Your task to perform on an android device: open chrome privacy settings Image 0: 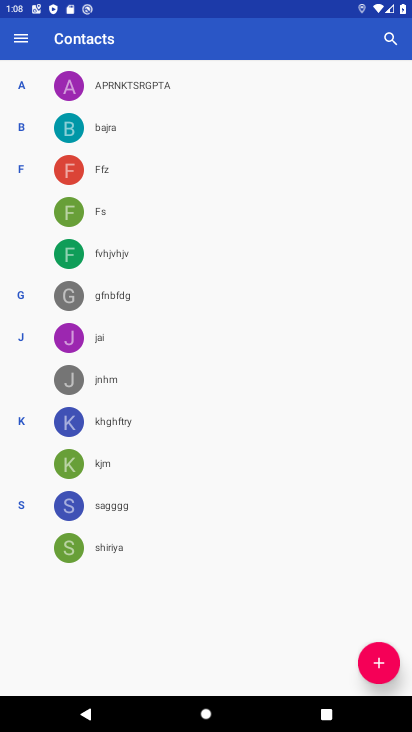
Step 0: press home button
Your task to perform on an android device: open chrome privacy settings Image 1: 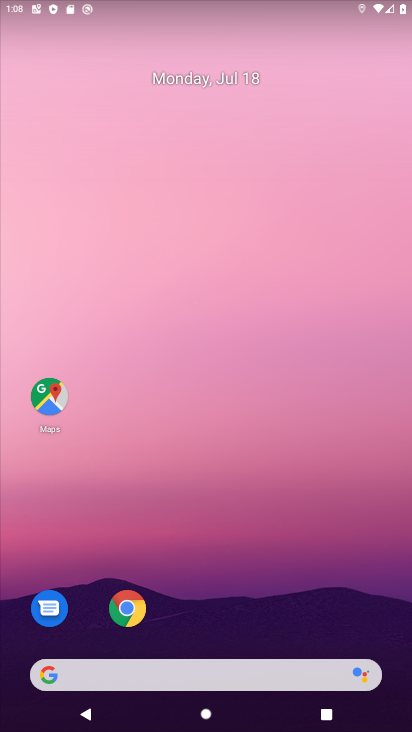
Step 1: drag from (324, 602) to (306, 99)
Your task to perform on an android device: open chrome privacy settings Image 2: 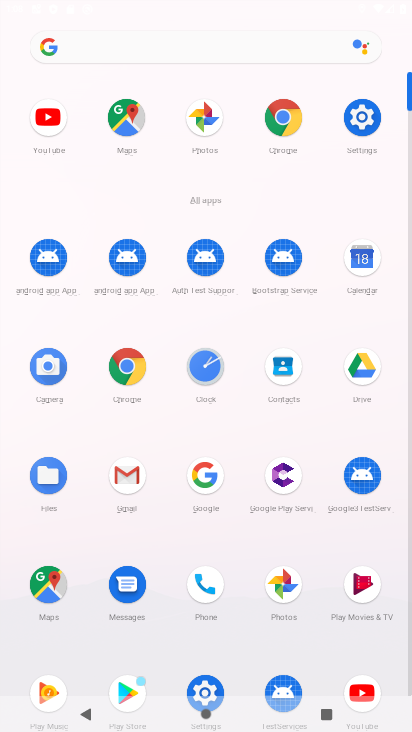
Step 2: click (357, 116)
Your task to perform on an android device: open chrome privacy settings Image 3: 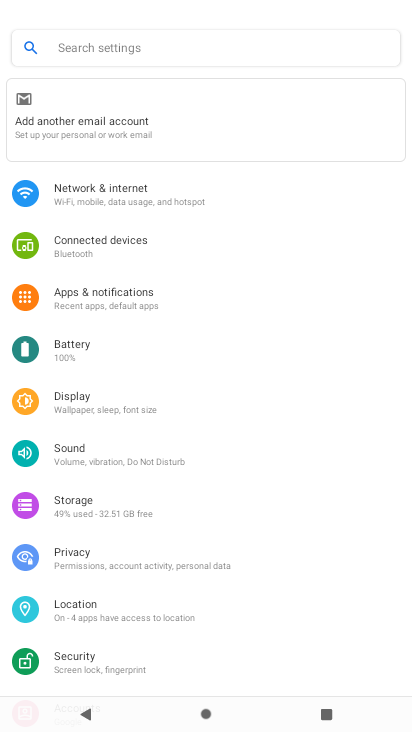
Step 3: press home button
Your task to perform on an android device: open chrome privacy settings Image 4: 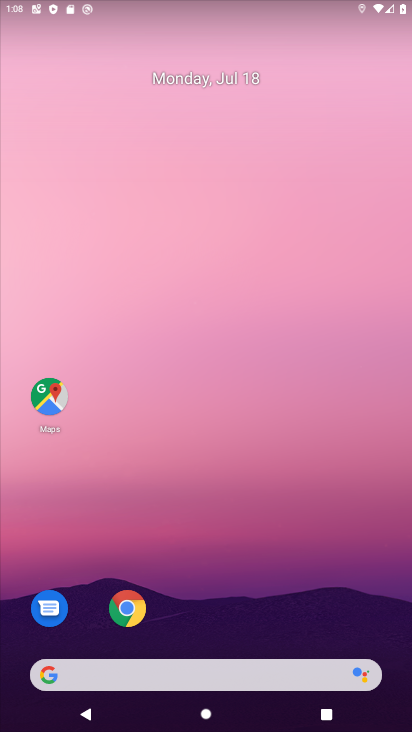
Step 4: click (120, 610)
Your task to perform on an android device: open chrome privacy settings Image 5: 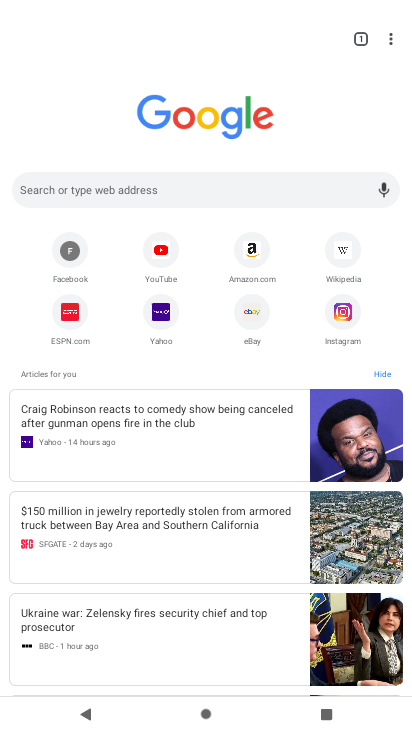
Step 5: click (394, 41)
Your task to perform on an android device: open chrome privacy settings Image 6: 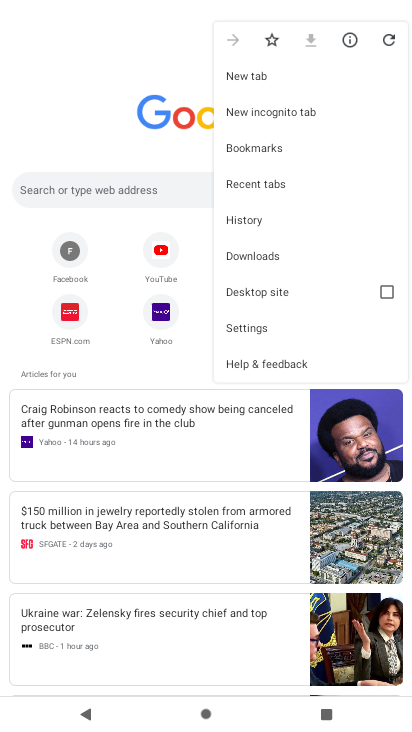
Step 6: click (279, 320)
Your task to perform on an android device: open chrome privacy settings Image 7: 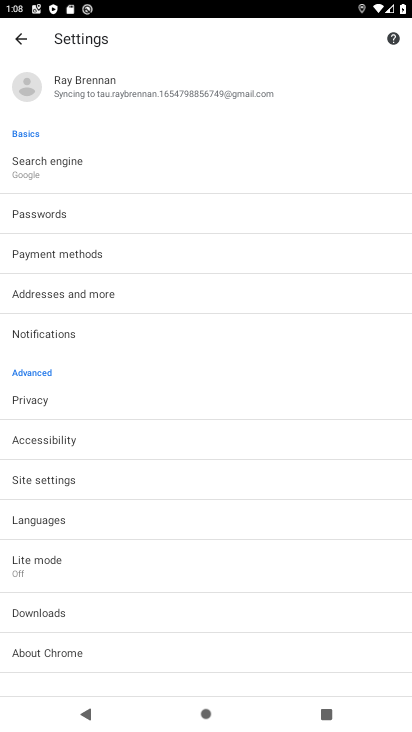
Step 7: click (121, 403)
Your task to perform on an android device: open chrome privacy settings Image 8: 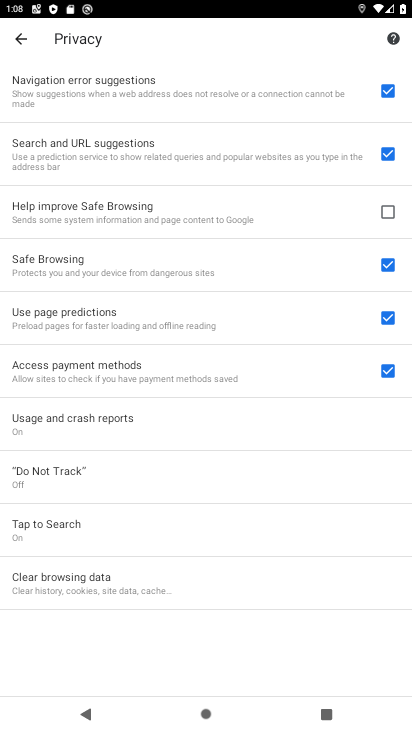
Step 8: task complete